Your task to perform on an android device: set an alarm Image 0: 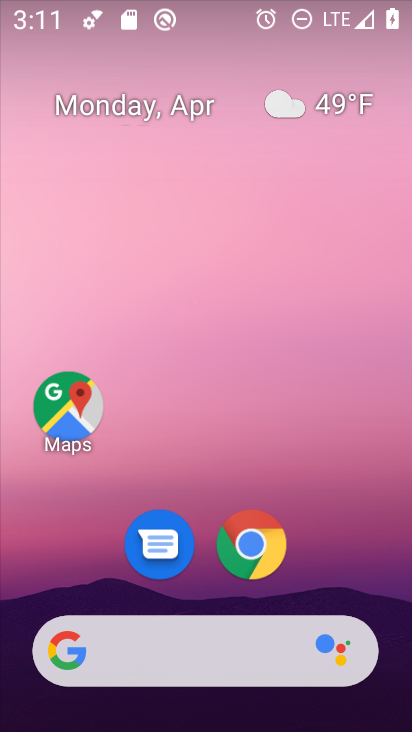
Step 0: drag from (365, 558) to (190, 74)
Your task to perform on an android device: set an alarm Image 1: 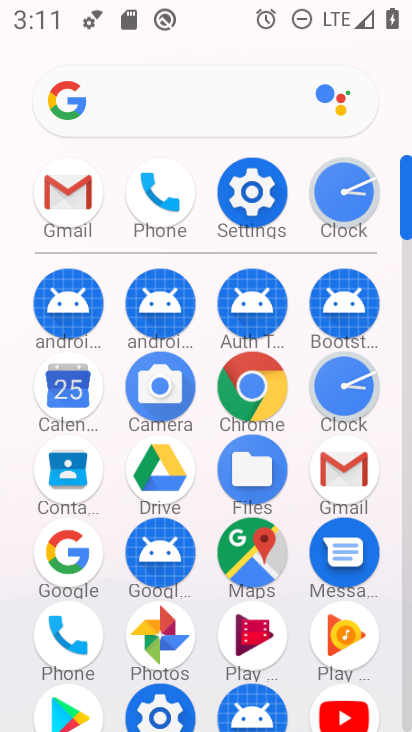
Step 1: click (354, 198)
Your task to perform on an android device: set an alarm Image 2: 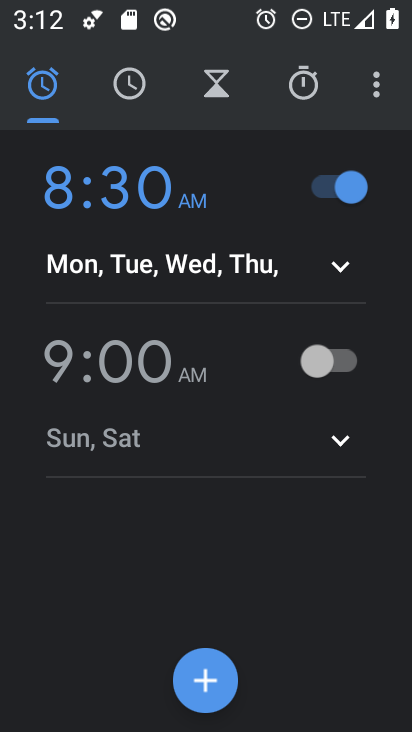
Step 2: click (324, 357)
Your task to perform on an android device: set an alarm Image 3: 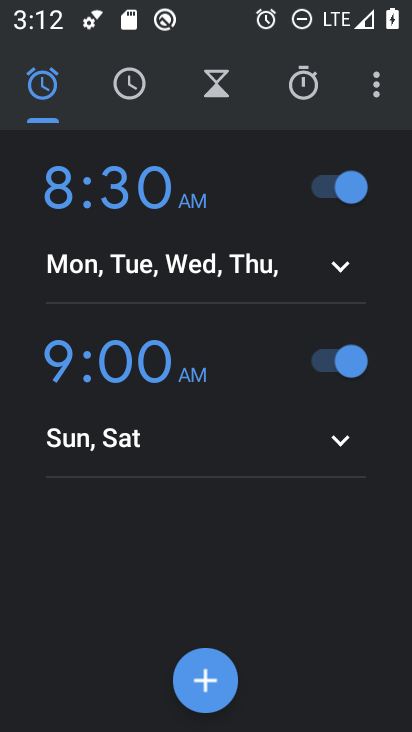
Step 3: task complete